Your task to perform on an android device: turn off priority inbox in the gmail app Image 0: 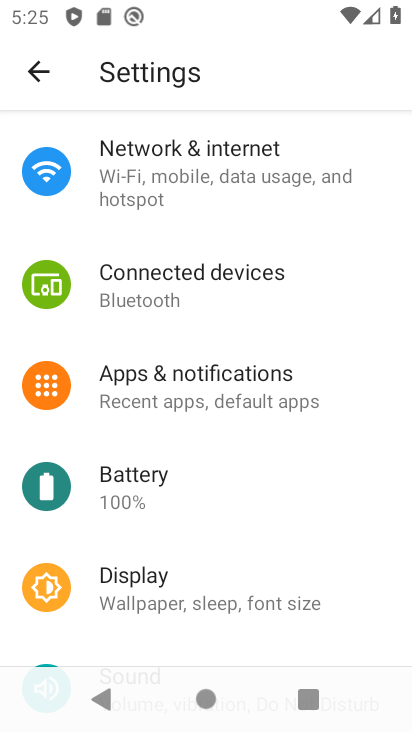
Step 0: press home button
Your task to perform on an android device: turn off priority inbox in the gmail app Image 1: 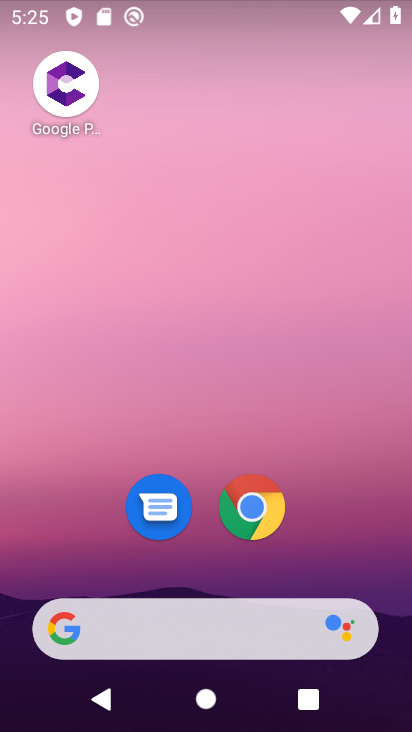
Step 1: drag from (196, 390) to (196, 158)
Your task to perform on an android device: turn off priority inbox in the gmail app Image 2: 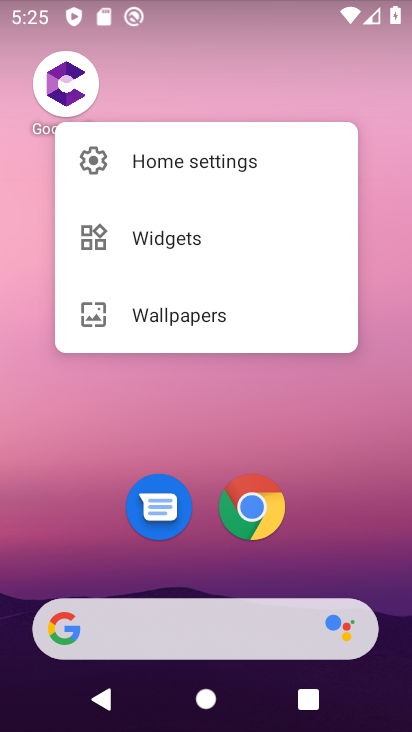
Step 2: click (297, 560)
Your task to perform on an android device: turn off priority inbox in the gmail app Image 3: 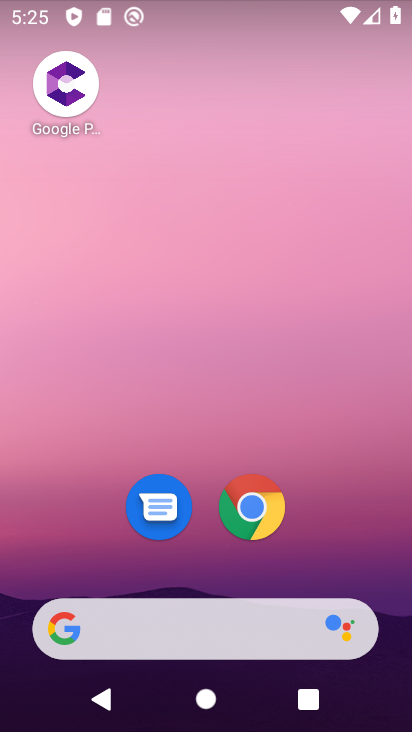
Step 3: drag from (212, 592) to (211, 185)
Your task to perform on an android device: turn off priority inbox in the gmail app Image 4: 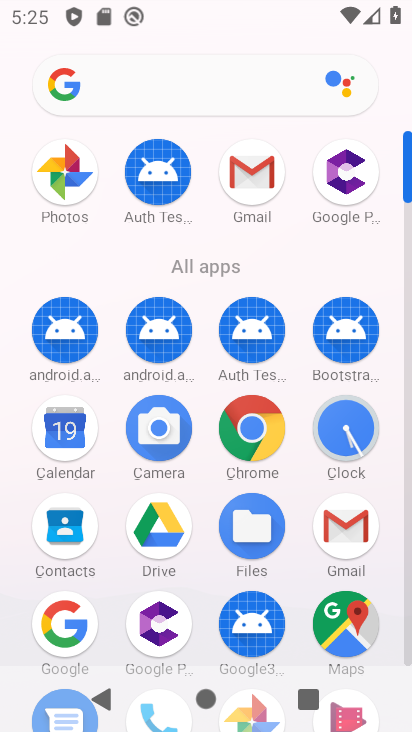
Step 4: click (266, 177)
Your task to perform on an android device: turn off priority inbox in the gmail app Image 5: 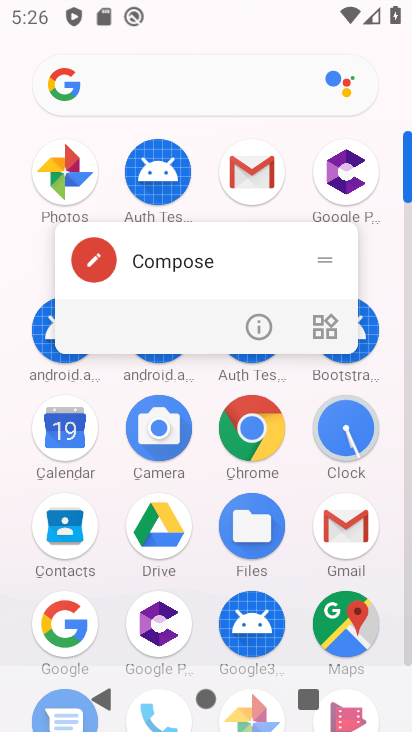
Step 5: click (237, 165)
Your task to perform on an android device: turn off priority inbox in the gmail app Image 6: 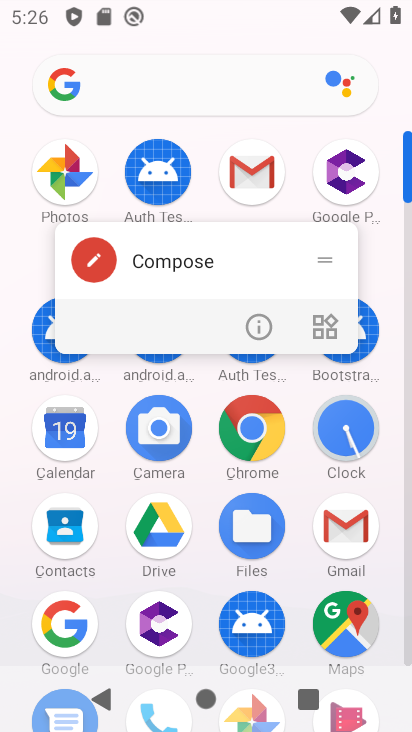
Step 6: click (238, 166)
Your task to perform on an android device: turn off priority inbox in the gmail app Image 7: 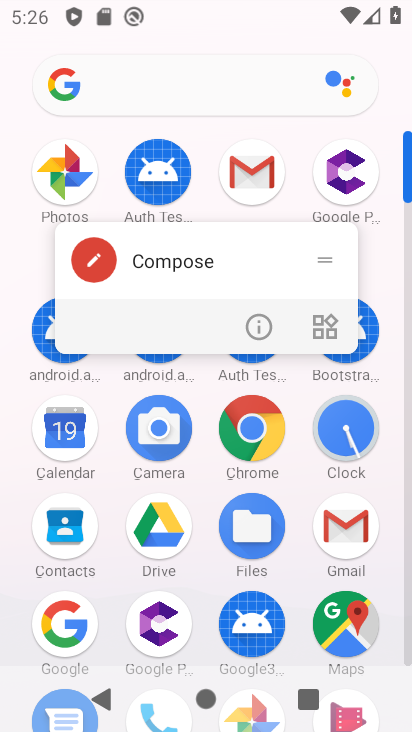
Step 7: click (243, 180)
Your task to perform on an android device: turn off priority inbox in the gmail app Image 8: 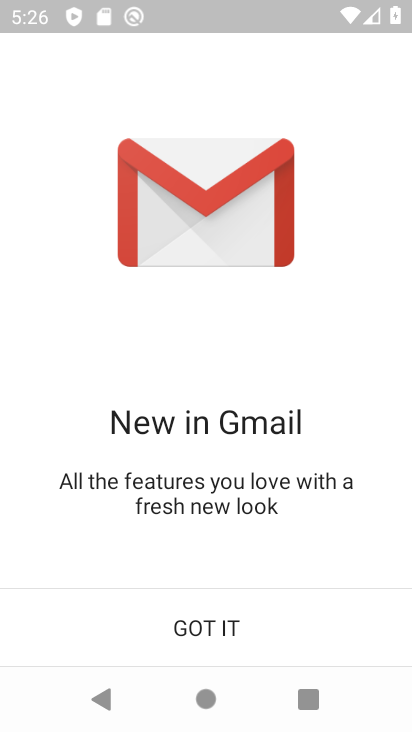
Step 8: click (220, 623)
Your task to perform on an android device: turn off priority inbox in the gmail app Image 9: 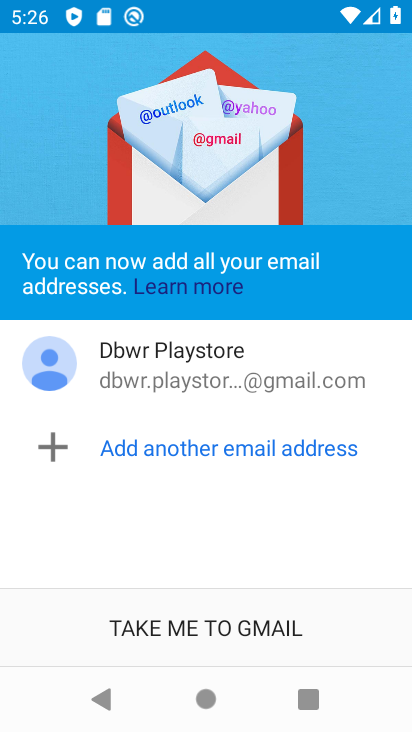
Step 9: click (227, 630)
Your task to perform on an android device: turn off priority inbox in the gmail app Image 10: 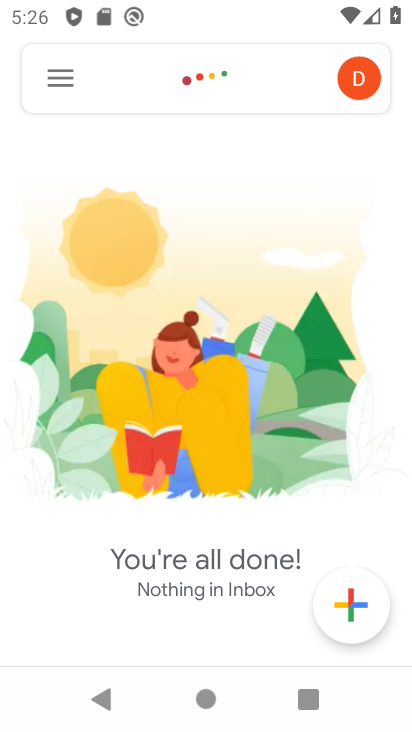
Step 10: click (54, 77)
Your task to perform on an android device: turn off priority inbox in the gmail app Image 11: 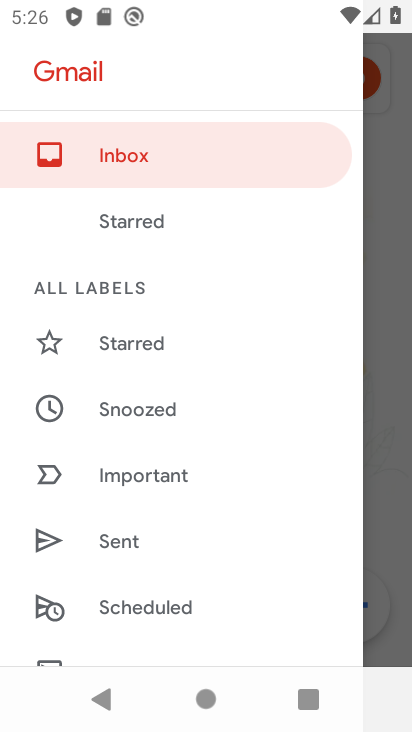
Step 11: drag from (160, 632) to (219, 160)
Your task to perform on an android device: turn off priority inbox in the gmail app Image 12: 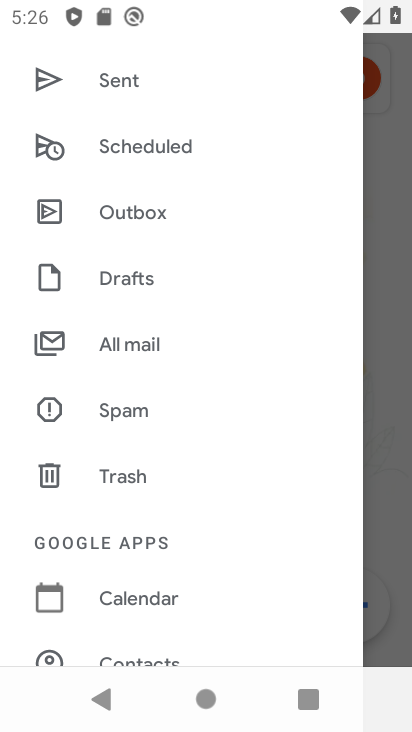
Step 12: drag from (171, 494) to (171, 285)
Your task to perform on an android device: turn off priority inbox in the gmail app Image 13: 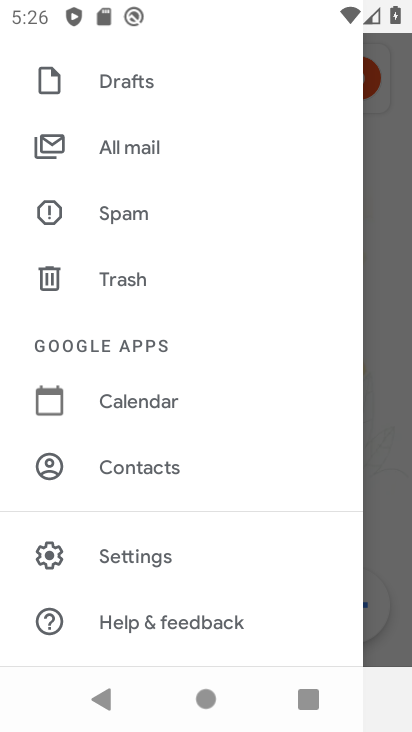
Step 13: click (146, 556)
Your task to perform on an android device: turn off priority inbox in the gmail app Image 14: 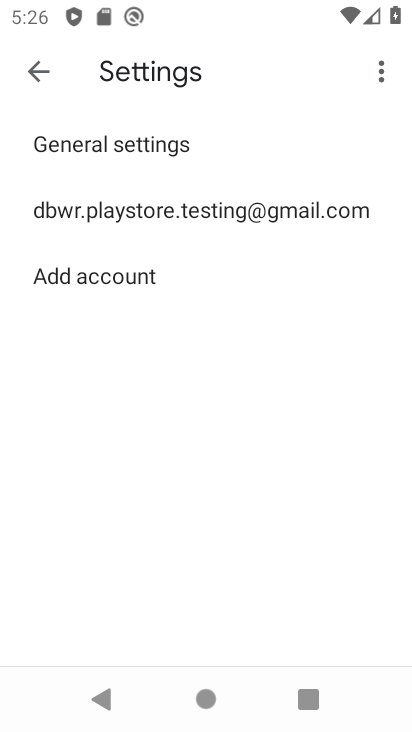
Step 14: click (169, 199)
Your task to perform on an android device: turn off priority inbox in the gmail app Image 15: 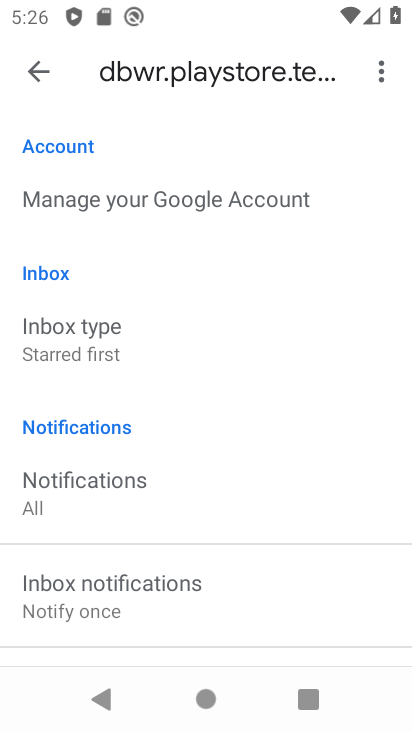
Step 15: task complete